Your task to perform on an android device: turn off improve location accuracy Image 0: 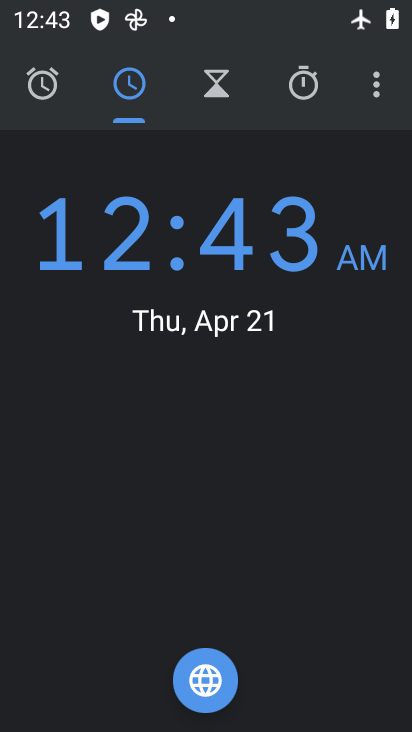
Step 0: press home button
Your task to perform on an android device: turn off improve location accuracy Image 1: 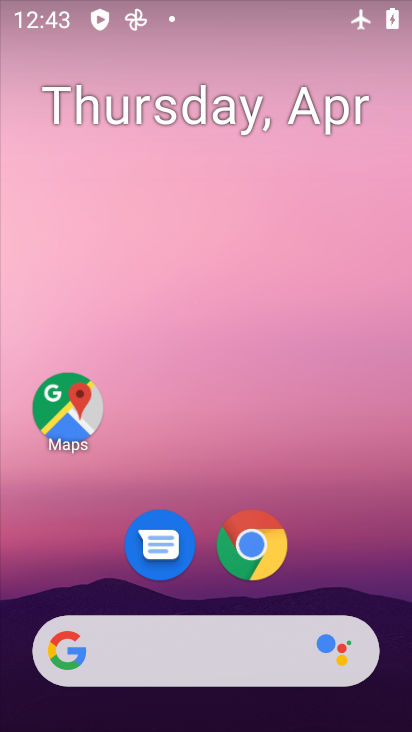
Step 1: drag from (352, 534) to (328, 77)
Your task to perform on an android device: turn off improve location accuracy Image 2: 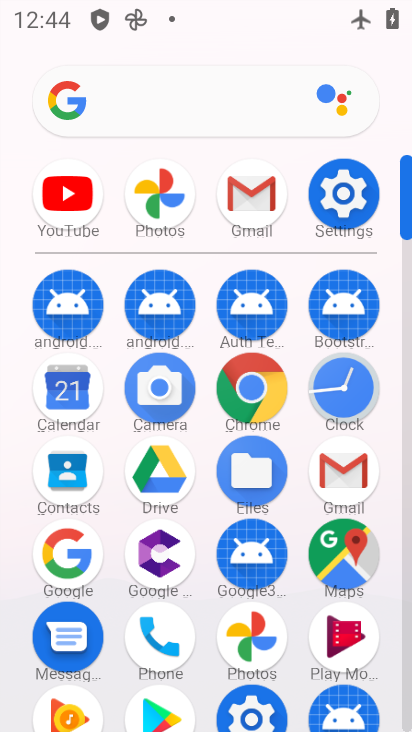
Step 2: click (339, 200)
Your task to perform on an android device: turn off improve location accuracy Image 3: 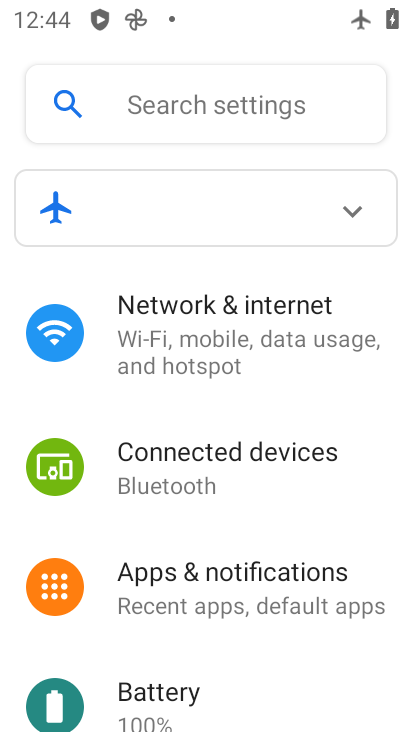
Step 3: drag from (254, 590) to (254, 180)
Your task to perform on an android device: turn off improve location accuracy Image 4: 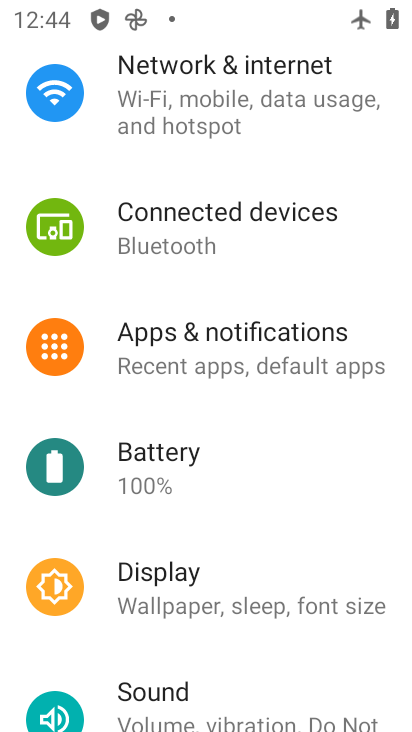
Step 4: drag from (238, 500) to (253, 195)
Your task to perform on an android device: turn off improve location accuracy Image 5: 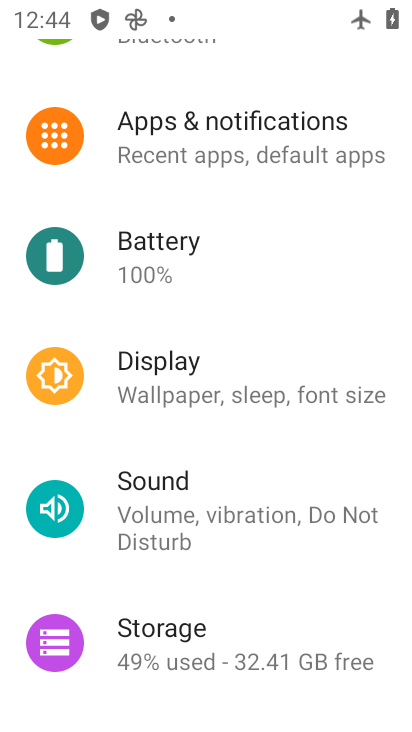
Step 5: drag from (211, 204) to (174, 15)
Your task to perform on an android device: turn off improve location accuracy Image 6: 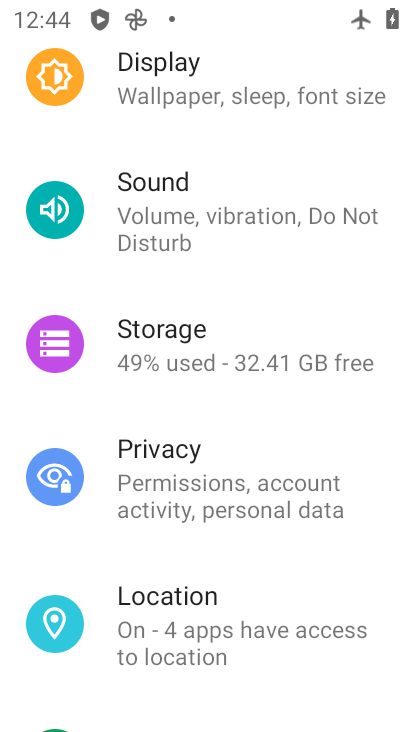
Step 6: click (193, 601)
Your task to perform on an android device: turn off improve location accuracy Image 7: 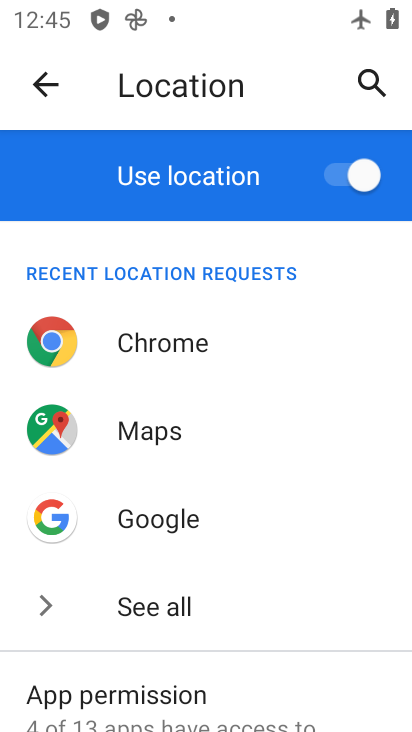
Step 7: drag from (221, 493) to (174, 39)
Your task to perform on an android device: turn off improve location accuracy Image 8: 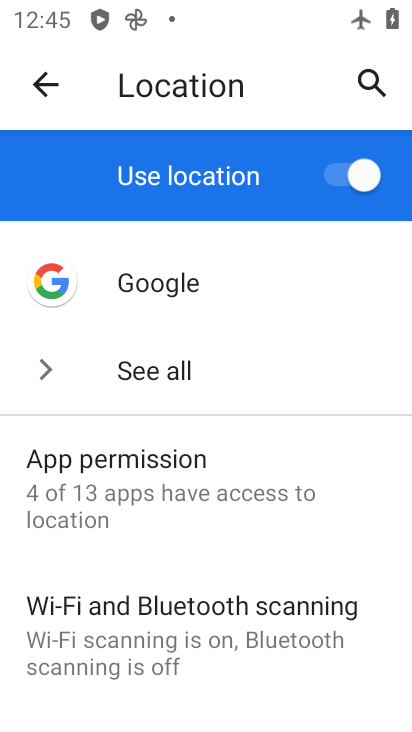
Step 8: drag from (196, 544) to (166, 200)
Your task to perform on an android device: turn off improve location accuracy Image 9: 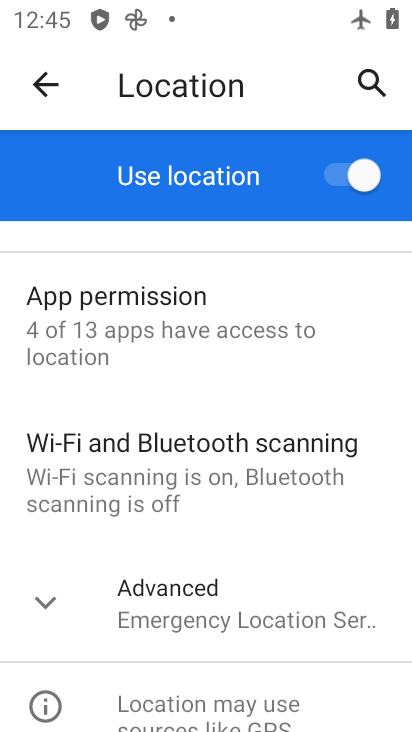
Step 9: click (175, 606)
Your task to perform on an android device: turn off improve location accuracy Image 10: 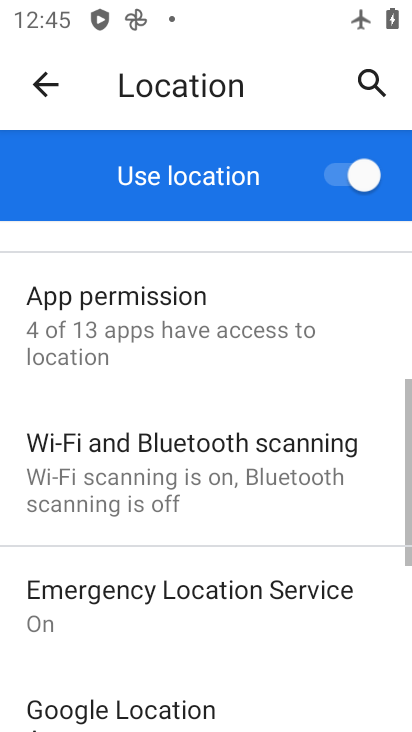
Step 10: drag from (262, 626) to (160, 181)
Your task to perform on an android device: turn off improve location accuracy Image 11: 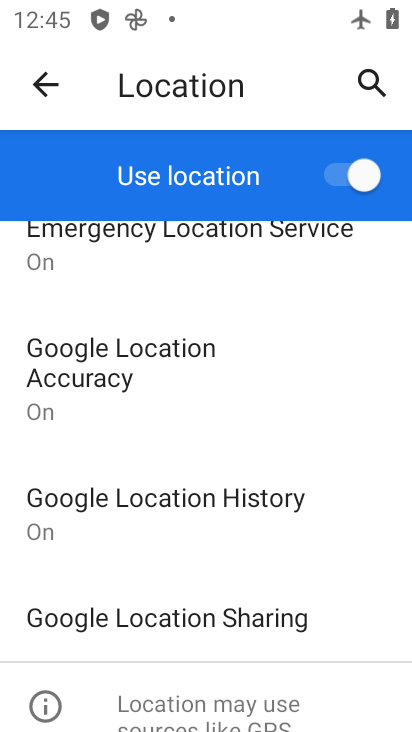
Step 11: click (131, 374)
Your task to perform on an android device: turn off improve location accuracy Image 12: 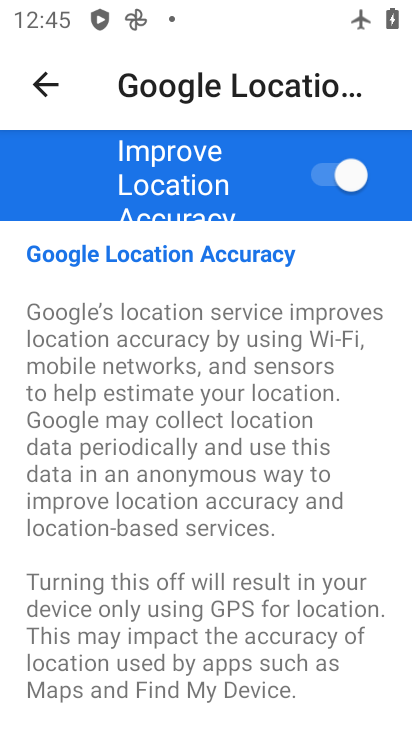
Step 12: click (318, 173)
Your task to perform on an android device: turn off improve location accuracy Image 13: 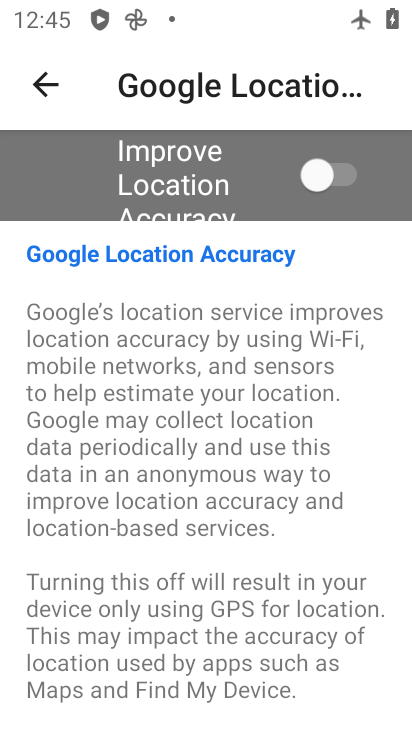
Step 13: task complete